Your task to perform on an android device: What is the news today? Image 0: 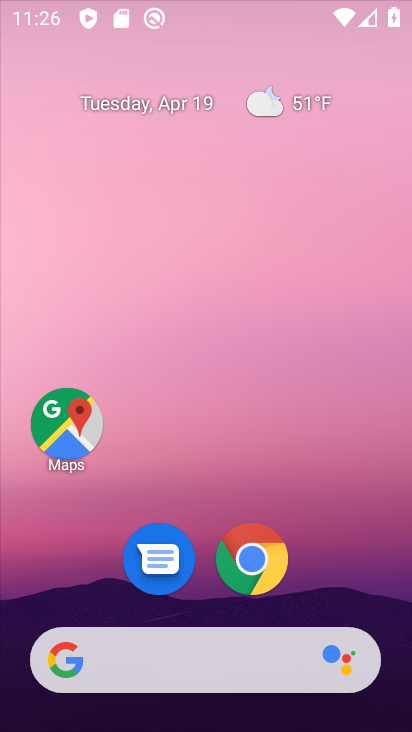
Step 0: drag from (236, 635) to (200, 288)
Your task to perform on an android device: What is the news today? Image 1: 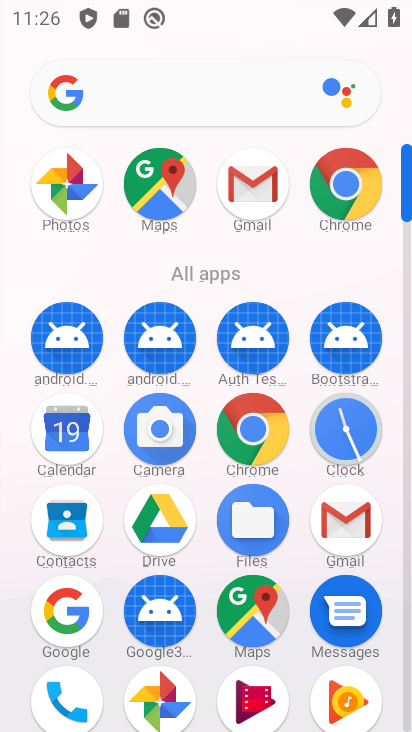
Step 1: press home button
Your task to perform on an android device: What is the news today? Image 2: 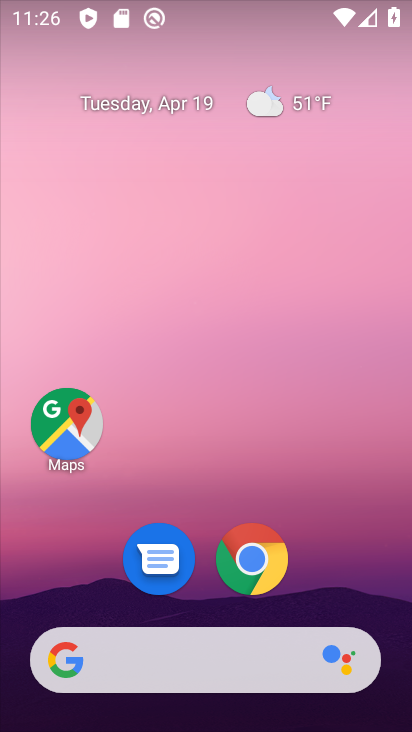
Step 2: drag from (261, 346) to (383, 470)
Your task to perform on an android device: What is the news today? Image 3: 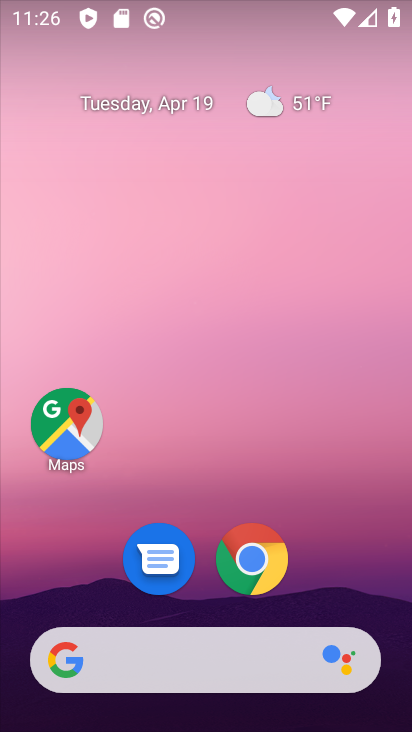
Step 3: drag from (134, 333) to (228, 403)
Your task to perform on an android device: What is the news today? Image 4: 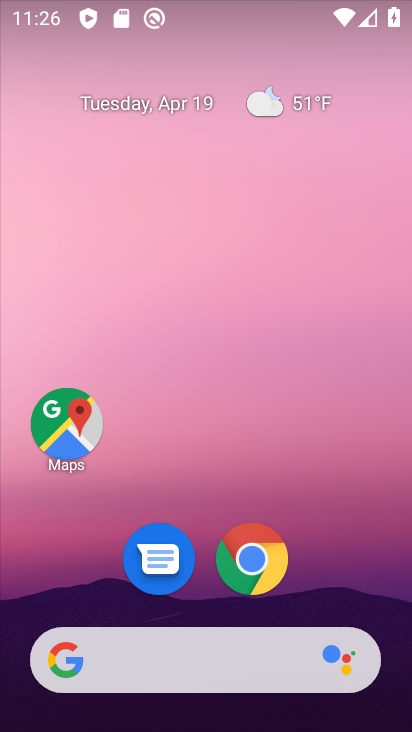
Step 4: drag from (36, 235) to (210, 392)
Your task to perform on an android device: What is the news today? Image 5: 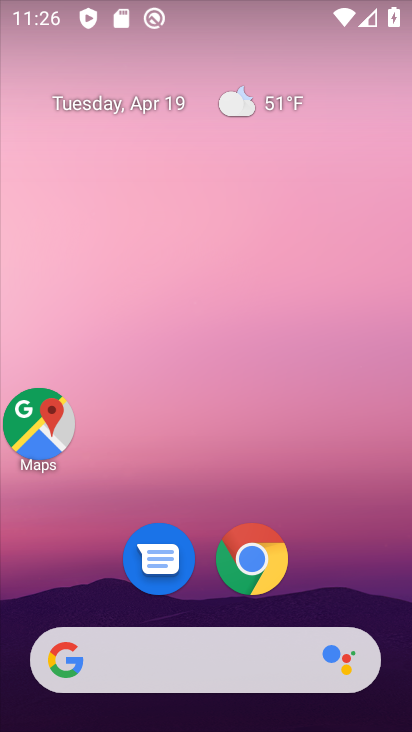
Step 5: click (169, 378)
Your task to perform on an android device: What is the news today? Image 6: 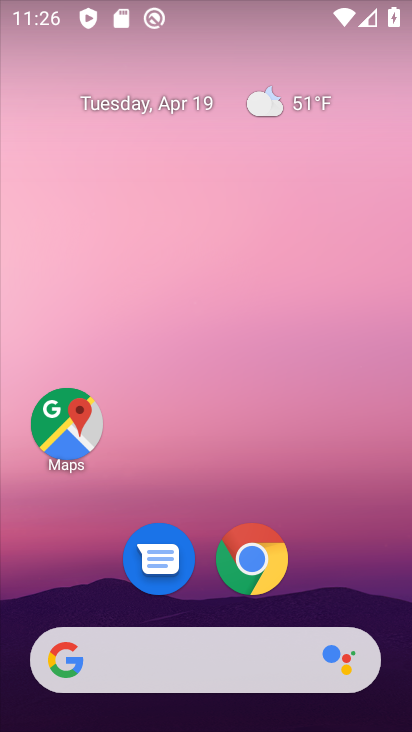
Step 6: task complete